Your task to perform on an android device: What is the recent news? Image 0: 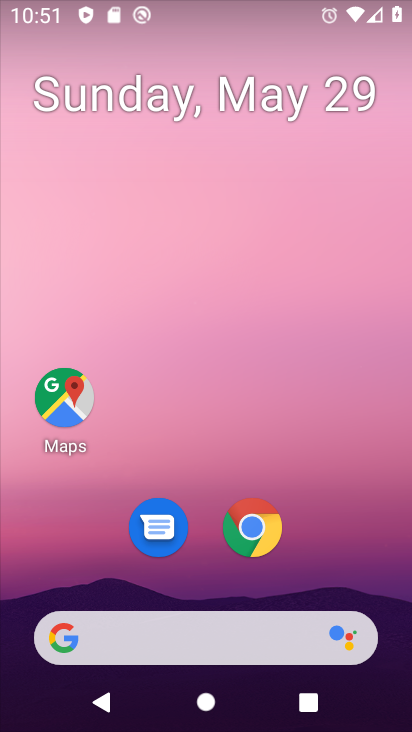
Step 0: click (179, 638)
Your task to perform on an android device: What is the recent news? Image 1: 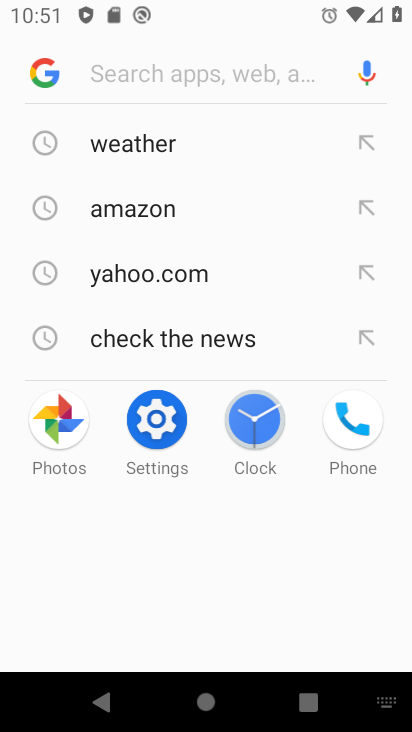
Step 1: click (177, 347)
Your task to perform on an android device: What is the recent news? Image 2: 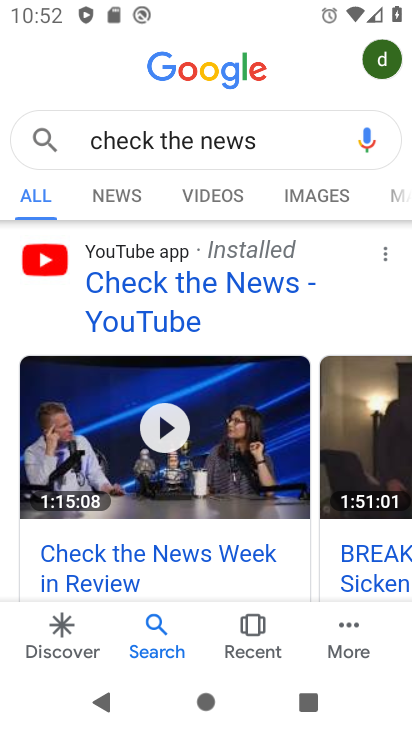
Step 2: task complete